Your task to perform on an android device: Search for custom wallets on Etsy. Image 0: 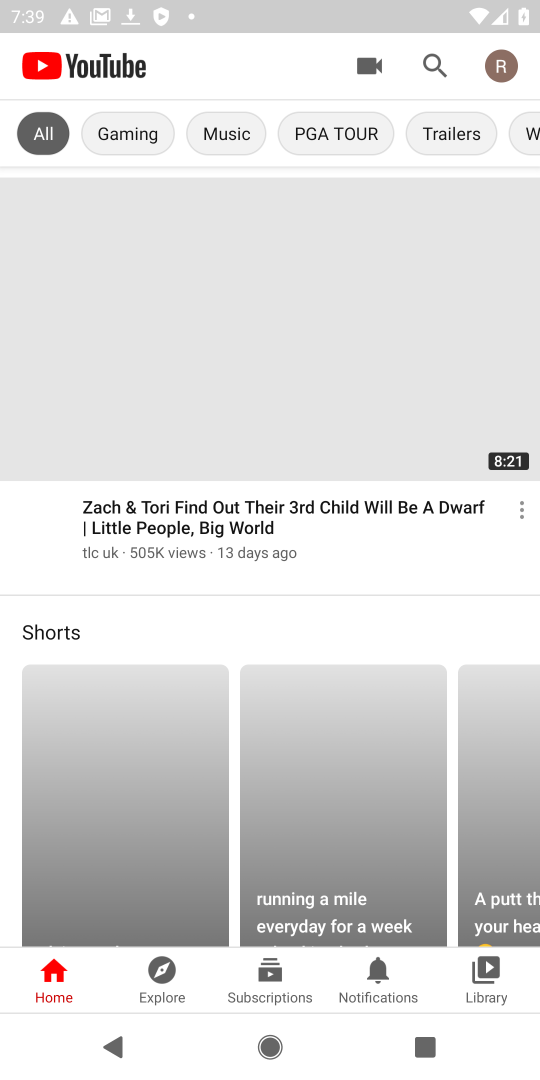
Step 0: press home button
Your task to perform on an android device: Search for custom wallets on Etsy. Image 1: 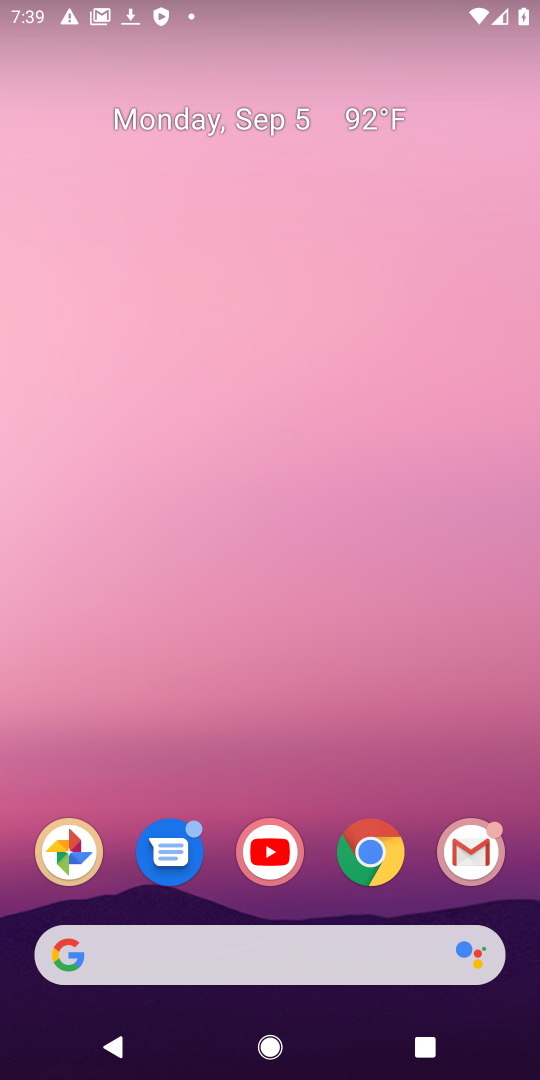
Step 1: click (380, 853)
Your task to perform on an android device: Search for custom wallets on Etsy. Image 2: 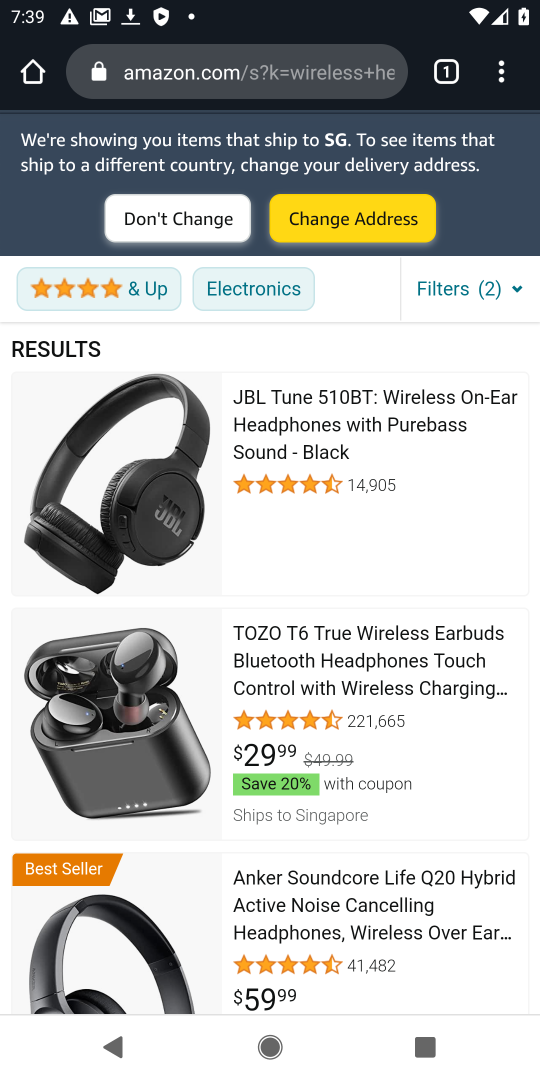
Step 2: click (186, 69)
Your task to perform on an android device: Search for custom wallets on Etsy. Image 3: 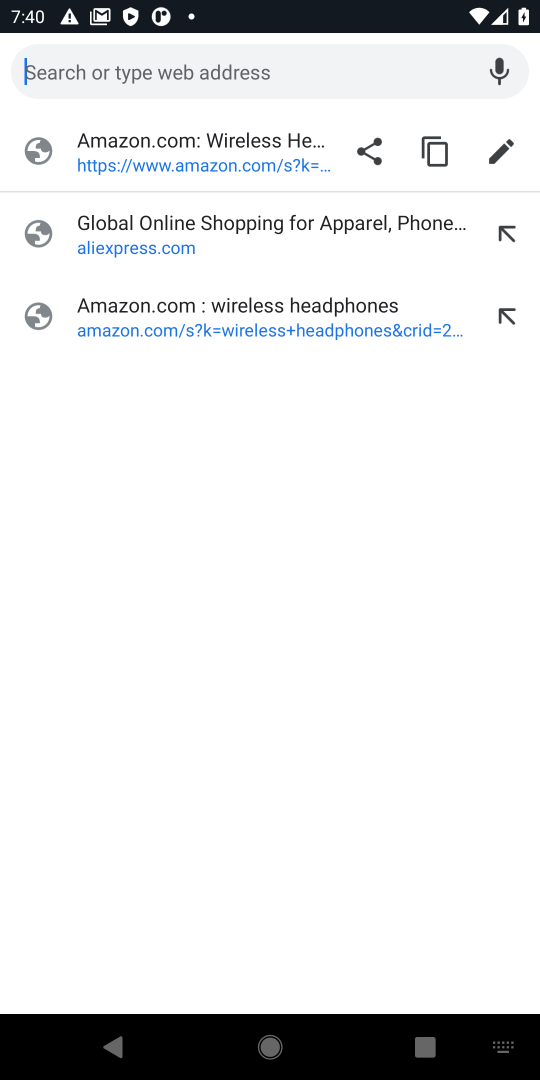
Step 3: type "etsy"
Your task to perform on an android device: Search for custom wallets on Etsy. Image 4: 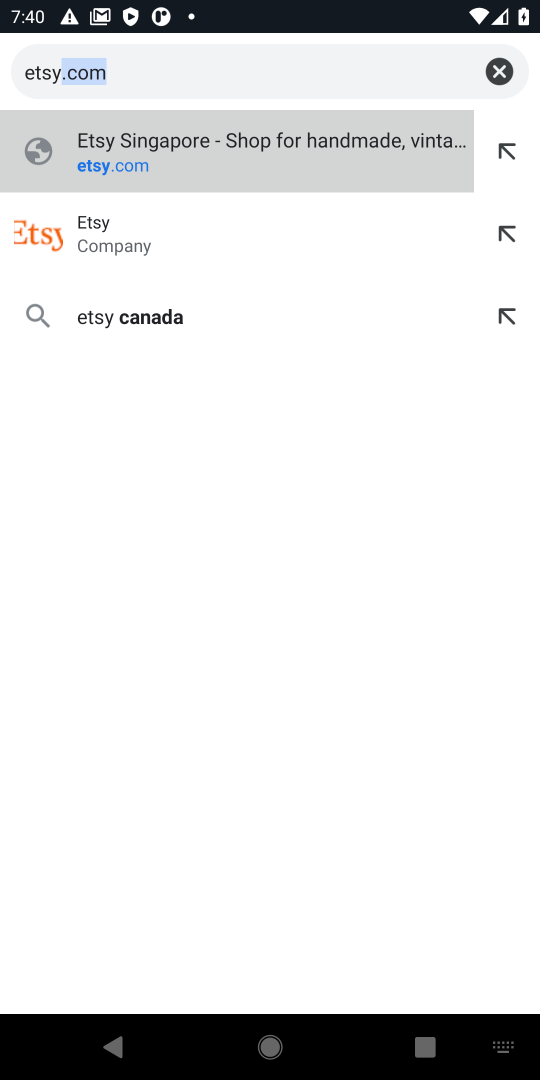
Step 4: press enter
Your task to perform on an android device: Search for custom wallets on Etsy. Image 5: 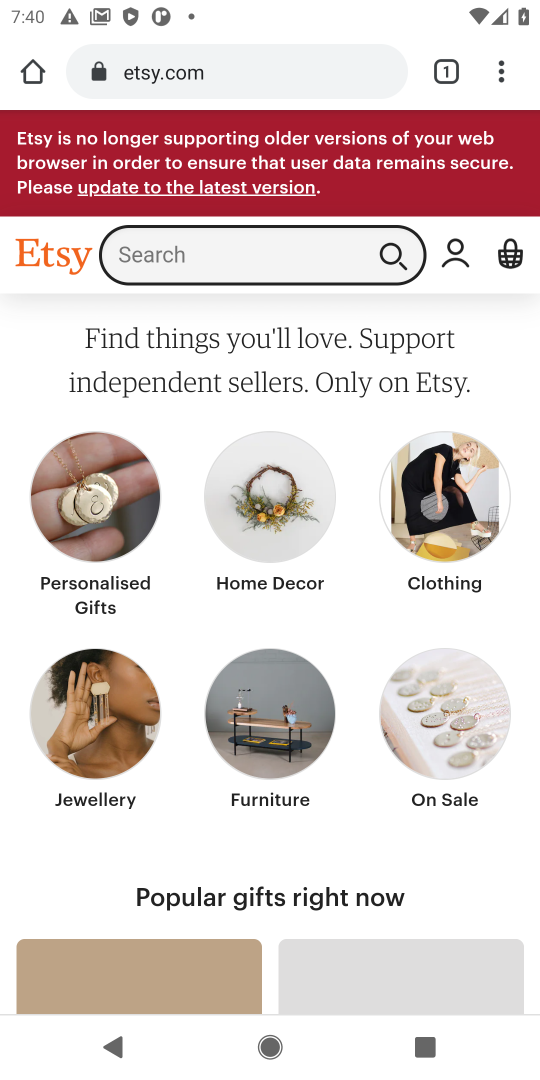
Step 5: click (252, 251)
Your task to perform on an android device: Search for custom wallets on Etsy. Image 6: 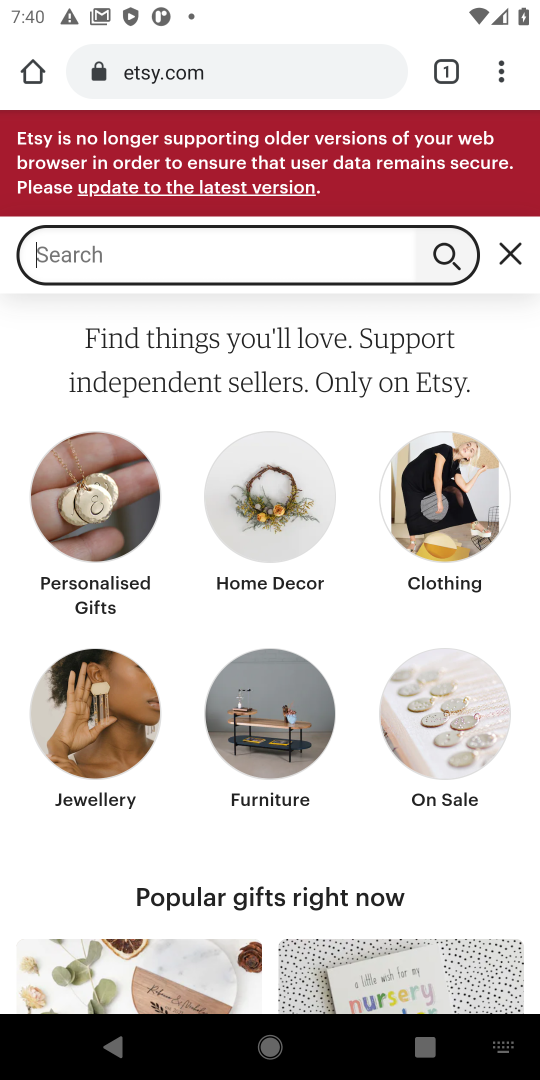
Step 6: click (280, 256)
Your task to perform on an android device: Search for custom wallets on Etsy. Image 7: 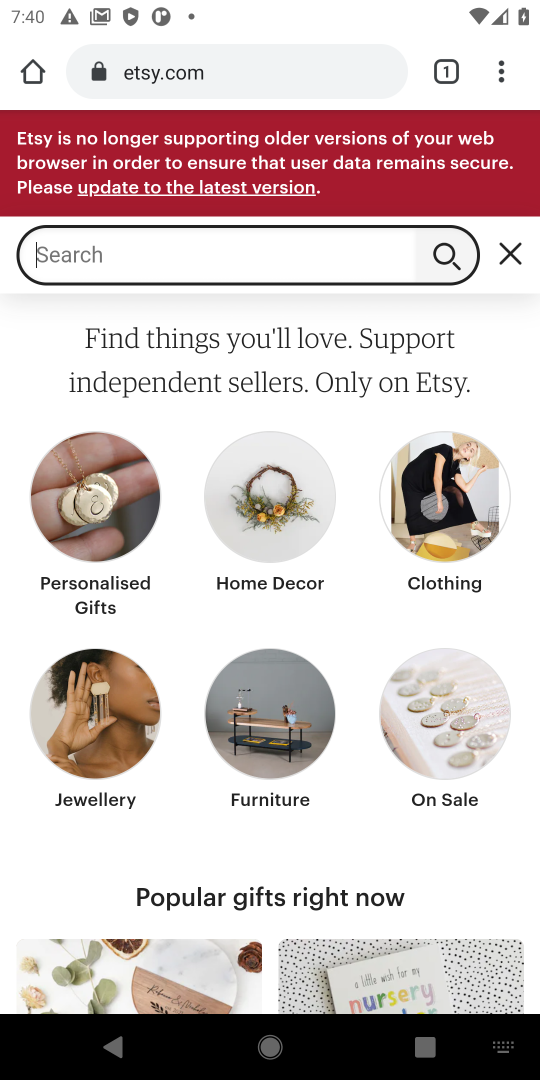
Step 7: click (263, 262)
Your task to perform on an android device: Search for custom wallets on Etsy. Image 8: 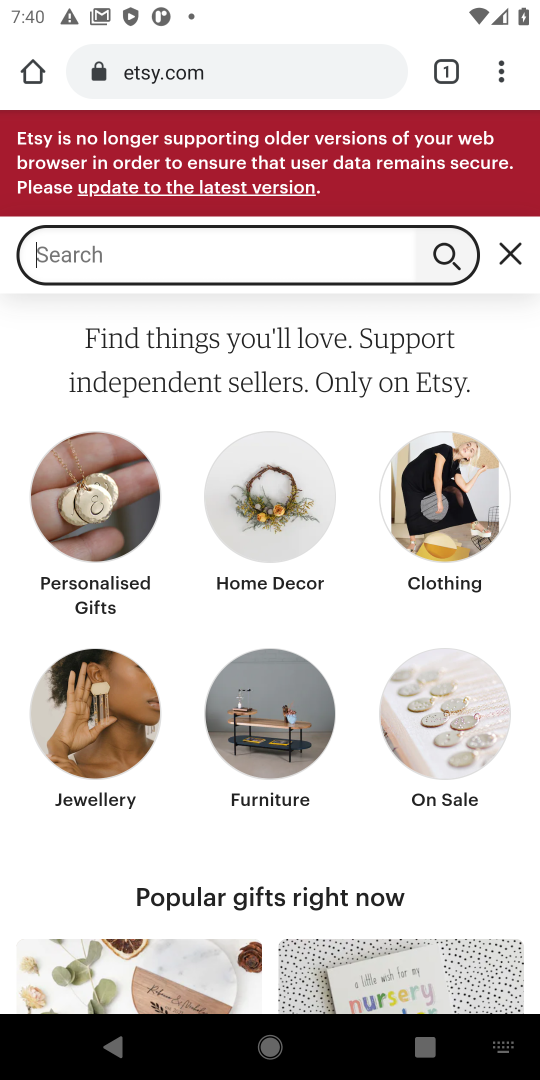
Step 8: type "custom wallets"
Your task to perform on an android device: Search for custom wallets on Etsy. Image 9: 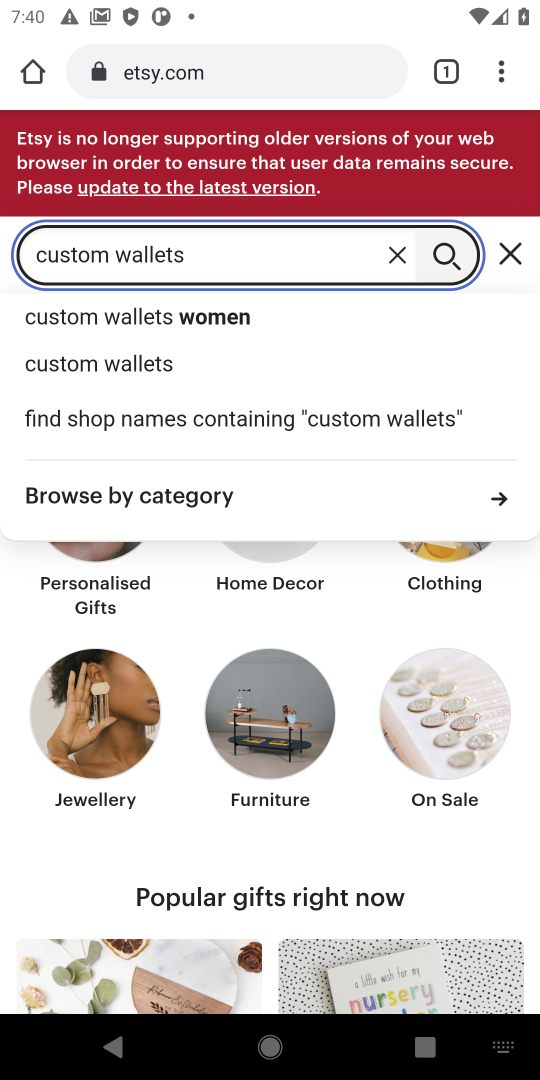
Step 9: press enter
Your task to perform on an android device: Search for custom wallets on Etsy. Image 10: 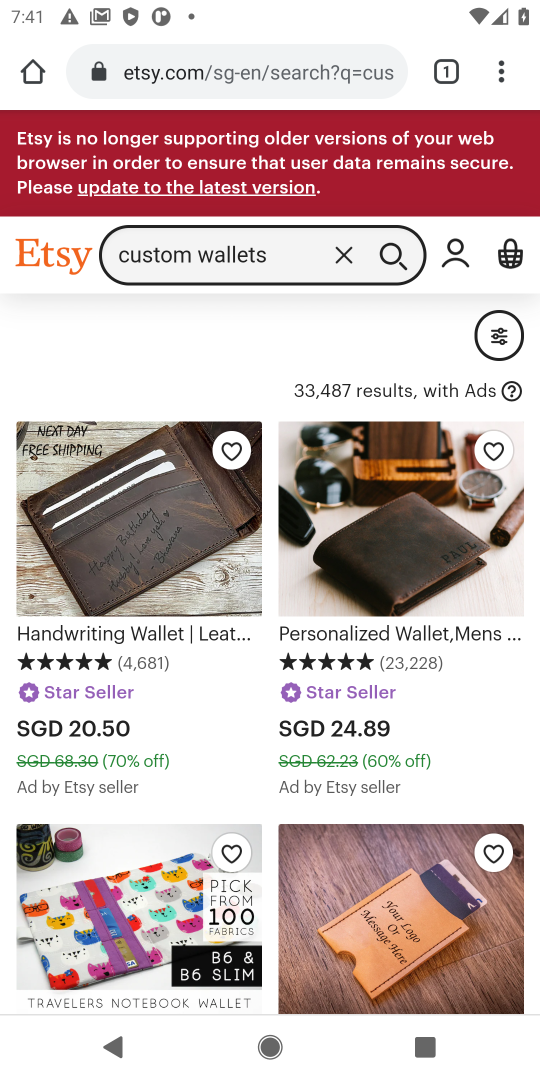
Step 10: task complete